Your task to perform on an android device: change your default location settings in chrome Image 0: 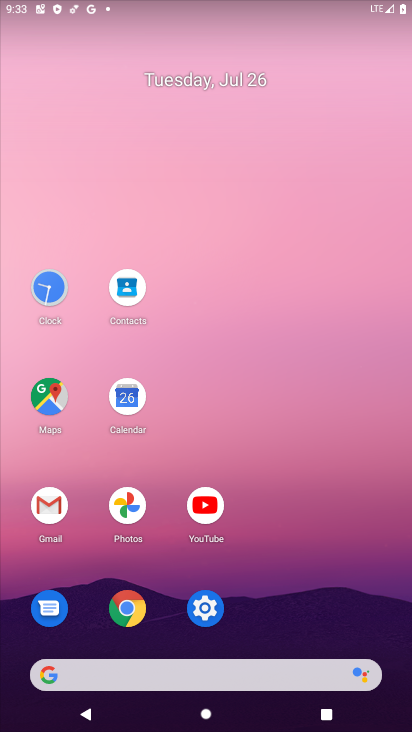
Step 0: click (126, 605)
Your task to perform on an android device: change your default location settings in chrome Image 1: 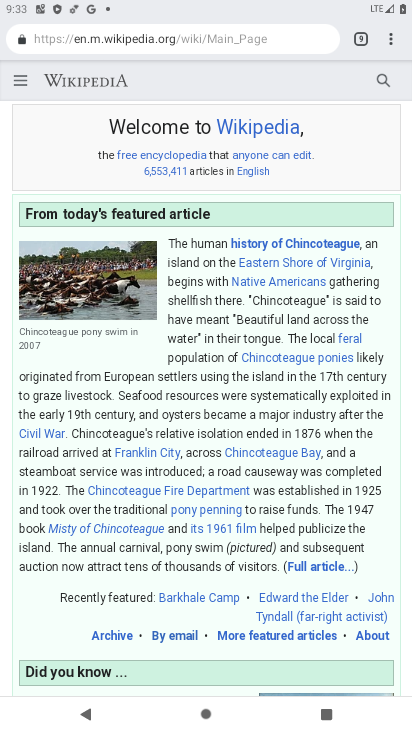
Step 1: click (388, 36)
Your task to perform on an android device: change your default location settings in chrome Image 2: 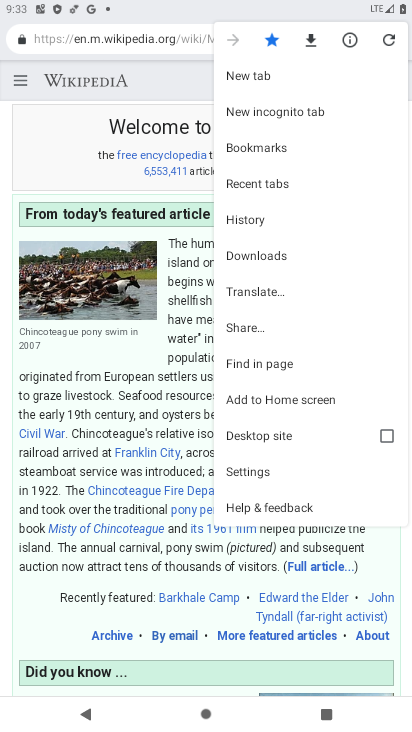
Step 2: click (254, 470)
Your task to perform on an android device: change your default location settings in chrome Image 3: 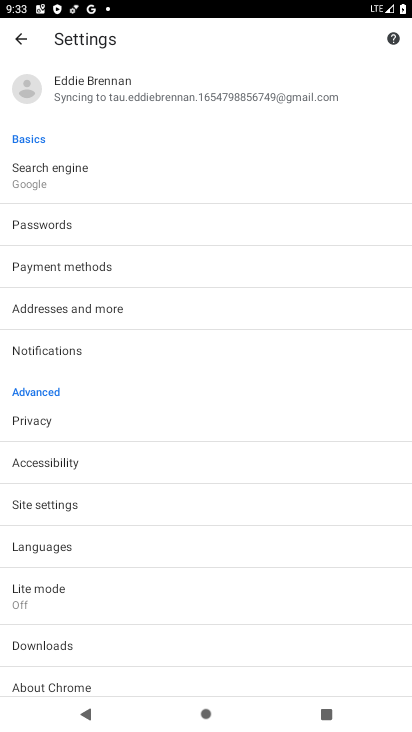
Step 3: click (44, 501)
Your task to perform on an android device: change your default location settings in chrome Image 4: 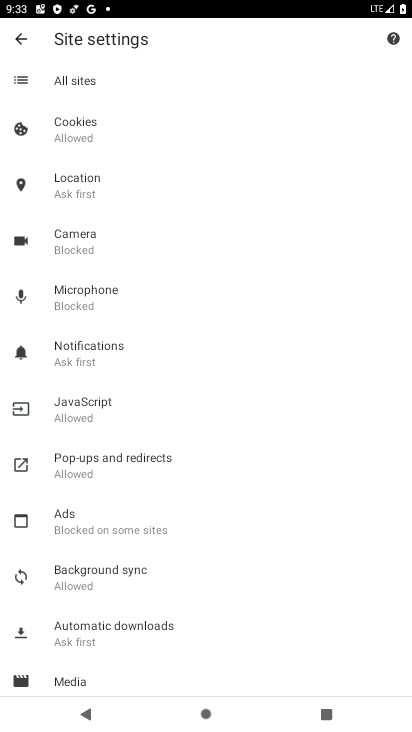
Step 4: click (75, 177)
Your task to perform on an android device: change your default location settings in chrome Image 5: 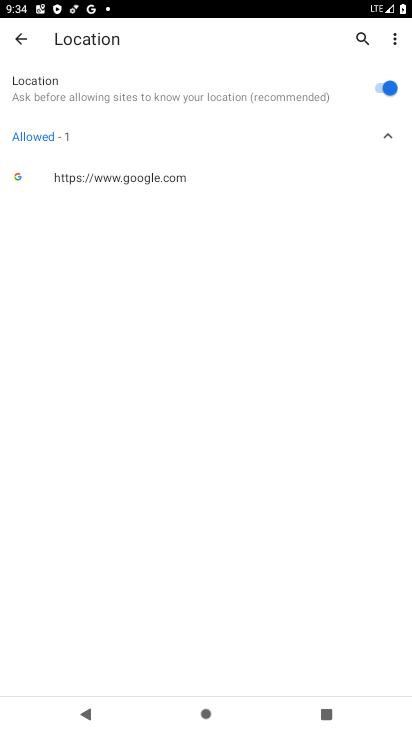
Step 5: click (388, 87)
Your task to perform on an android device: change your default location settings in chrome Image 6: 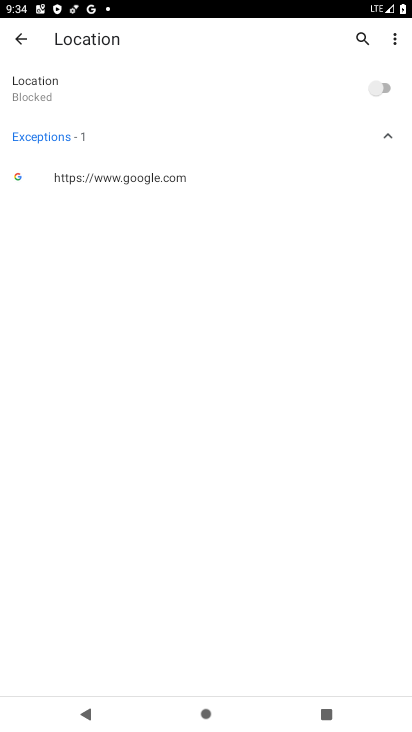
Step 6: task complete